Your task to perform on an android device: Open the web browser Image 0: 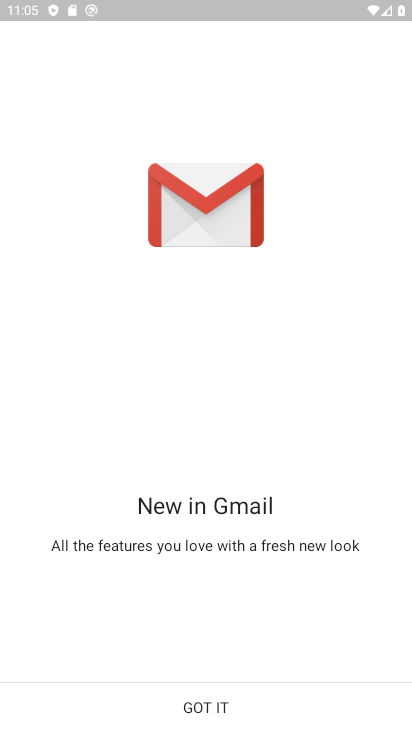
Step 0: press home button
Your task to perform on an android device: Open the web browser Image 1: 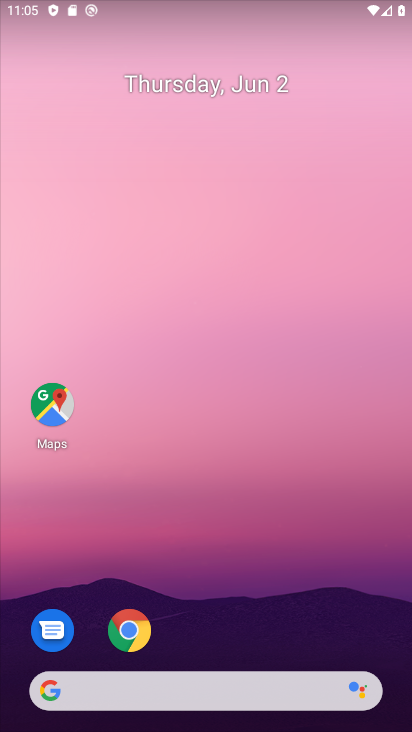
Step 1: drag from (194, 503) to (275, 119)
Your task to perform on an android device: Open the web browser Image 2: 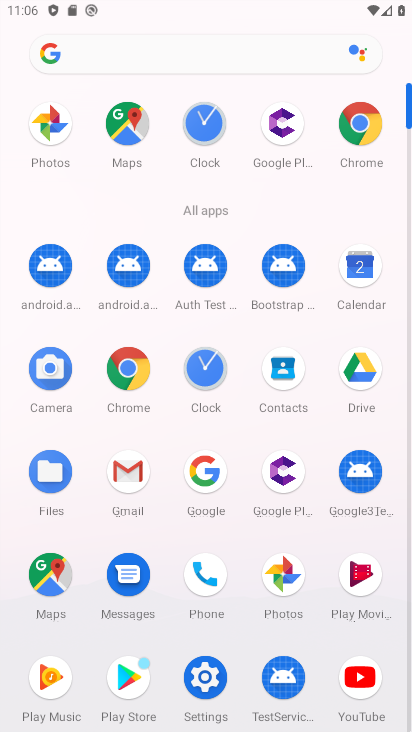
Step 2: click (192, 476)
Your task to perform on an android device: Open the web browser Image 3: 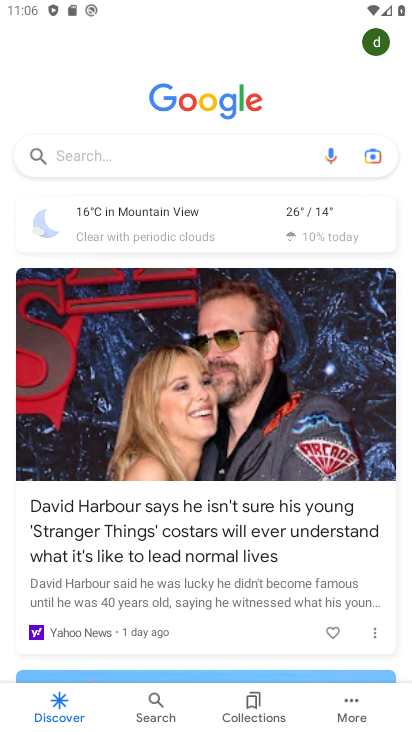
Step 3: task complete